Your task to perform on an android device: snooze an email in the gmail app Image 0: 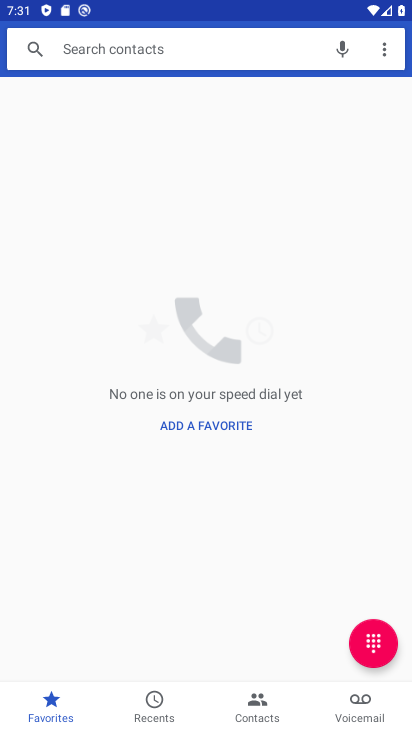
Step 0: press home button
Your task to perform on an android device: snooze an email in the gmail app Image 1: 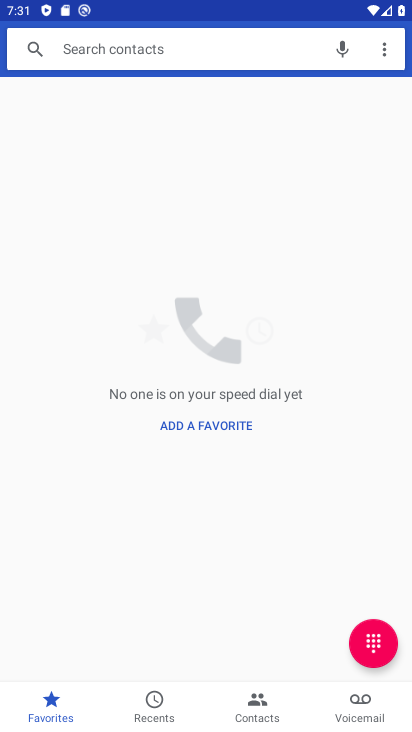
Step 1: click (263, 149)
Your task to perform on an android device: snooze an email in the gmail app Image 2: 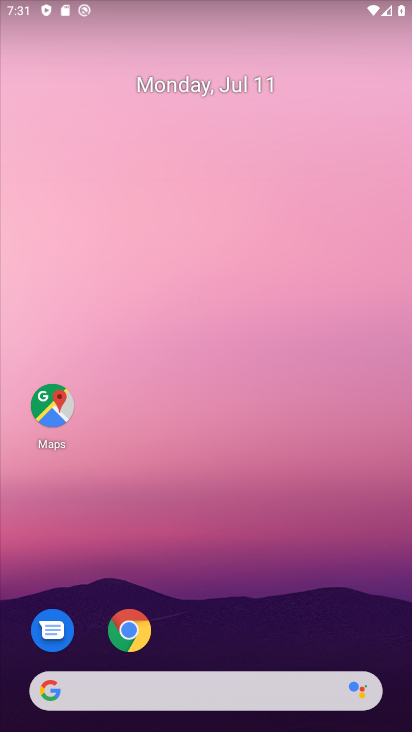
Step 2: drag from (198, 617) to (246, 161)
Your task to perform on an android device: snooze an email in the gmail app Image 3: 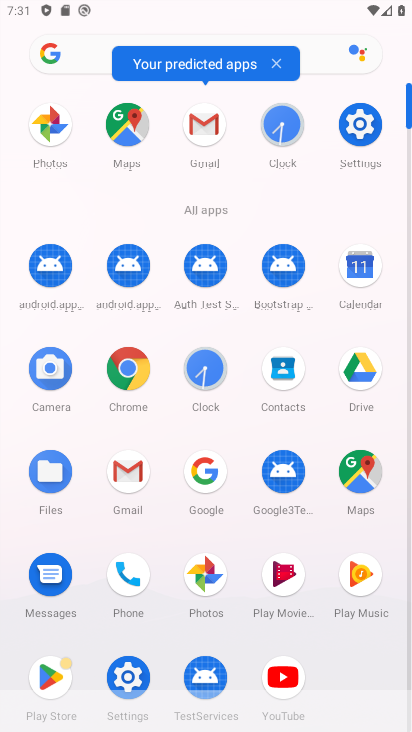
Step 3: click (118, 460)
Your task to perform on an android device: snooze an email in the gmail app Image 4: 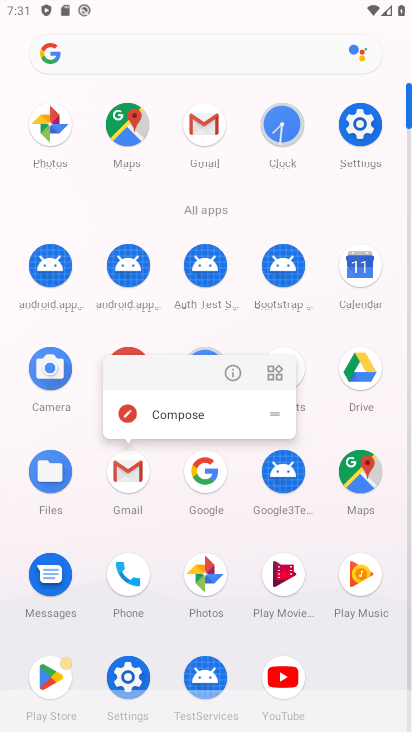
Step 4: click (235, 374)
Your task to perform on an android device: snooze an email in the gmail app Image 5: 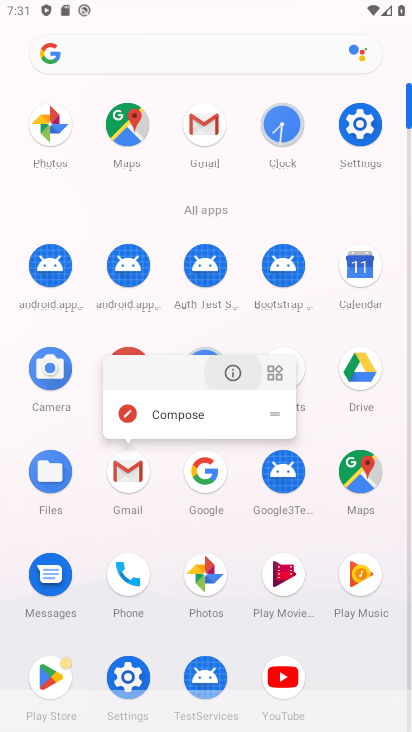
Step 5: click (235, 374)
Your task to perform on an android device: snooze an email in the gmail app Image 6: 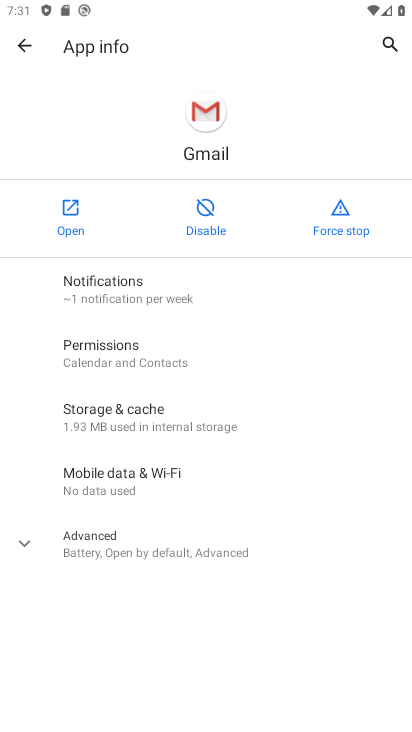
Step 6: click (76, 225)
Your task to perform on an android device: snooze an email in the gmail app Image 7: 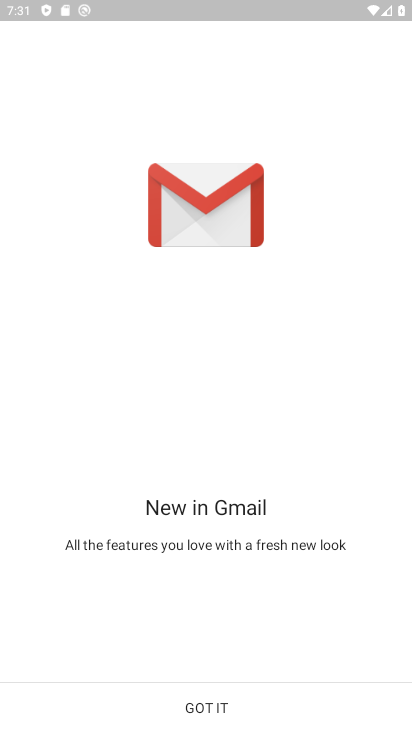
Step 7: click (211, 723)
Your task to perform on an android device: snooze an email in the gmail app Image 8: 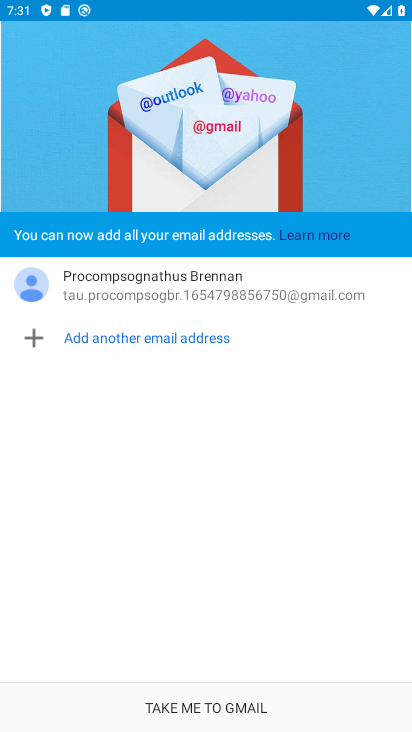
Step 8: click (198, 710)
Your task to perform on an android device: snooze an email in the gmail app Image 9: 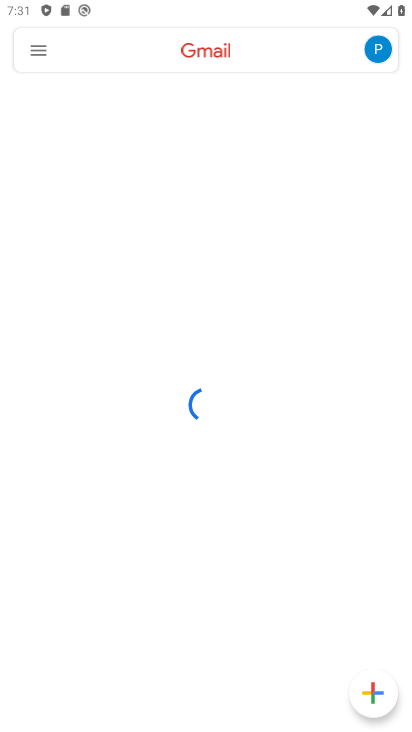
Step 9: click (36, 51)
Your task to perform on an android device: snooze an email in the gmail app Image 10: 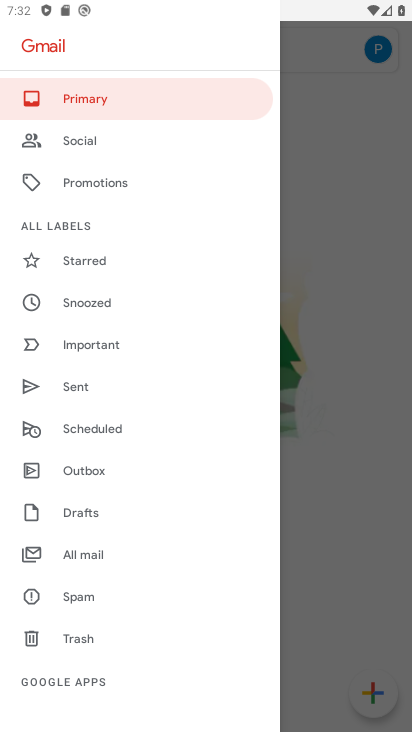
Step 10: click (105, 298)
Your task to perform on an android device: snooze an email in the gmail app Image 11: 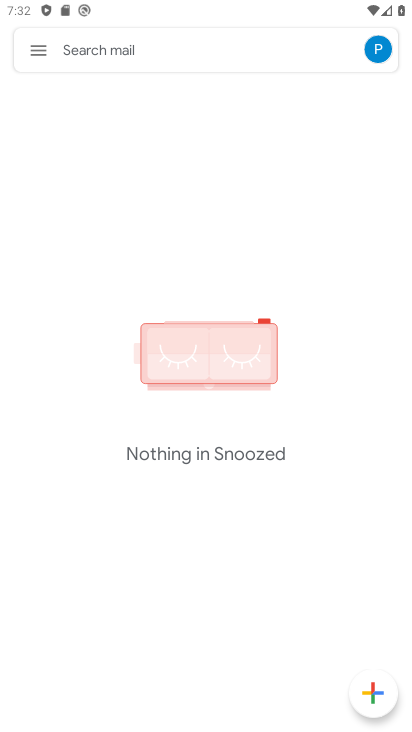
Step 11: drag from (175, 600) to (203, 266)
Your task to perform on an android device: snooze an email in the gmail app Image 12: 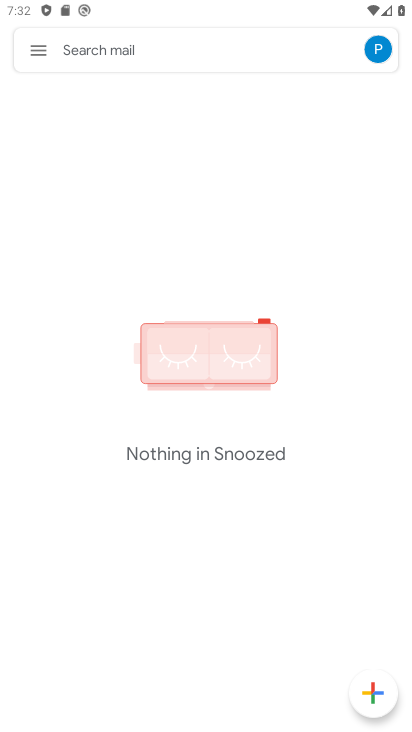
Step 12: click (200, 208)
Your task to perform on an android device: snooze an email in the gmail app Image 13: 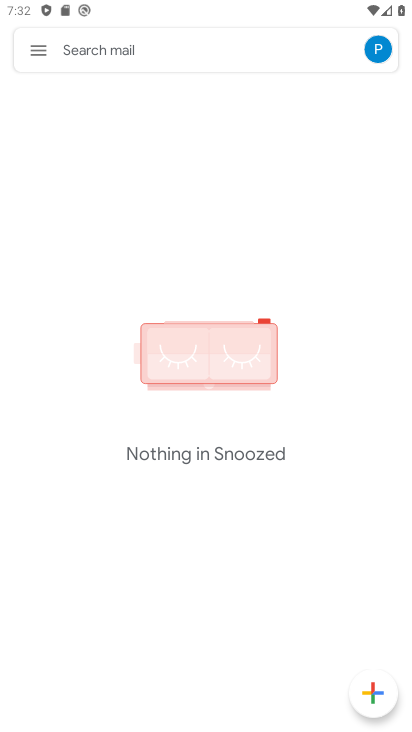
Step 13: click (200, 208)
Your task to perform on an android device: snooze an email in the gmail app Image 14: 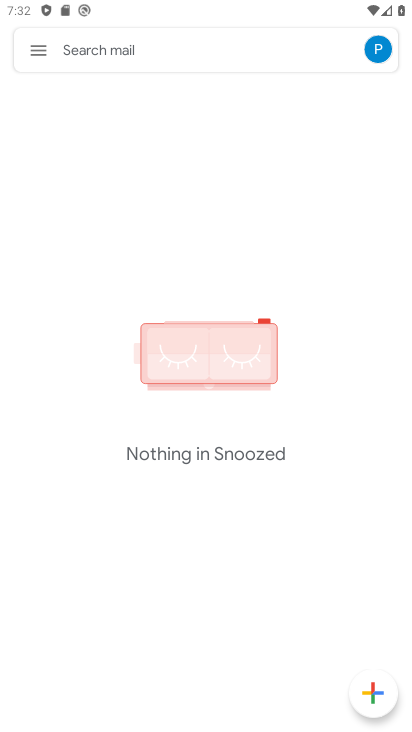
Step 14: click (200, 208)
Your task to perform on an android device: snooze an email in the gmail app Image 15: 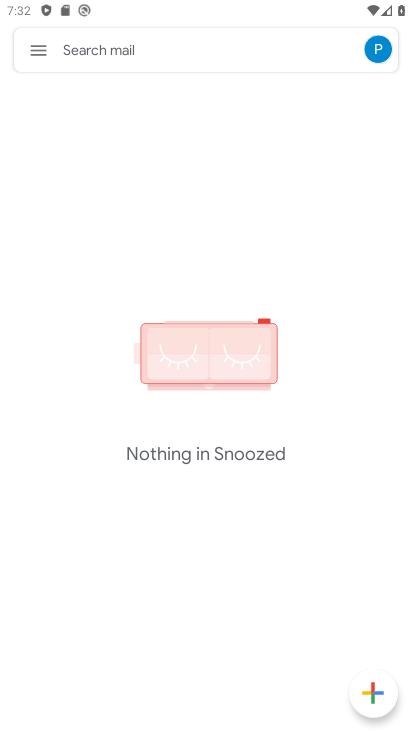
Step 15: drag from (235, 174) to (237, 426)
Your task to perform on an android device: snooze an email in the gmail app Image 16: 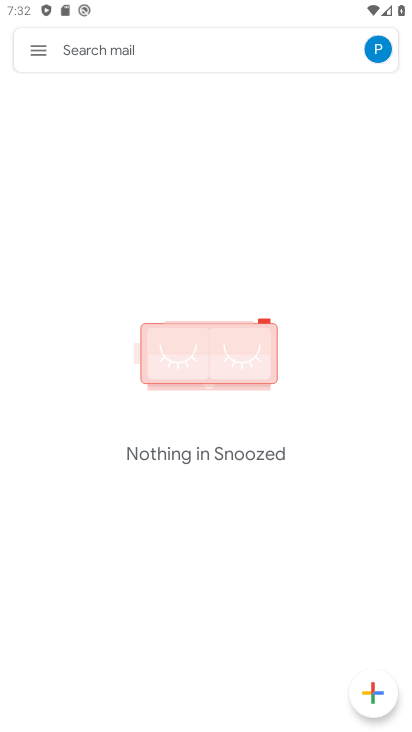
Step 16: click (243, 419)
Your task to perform on an android device: snooze an email in the gmail app Image 17: 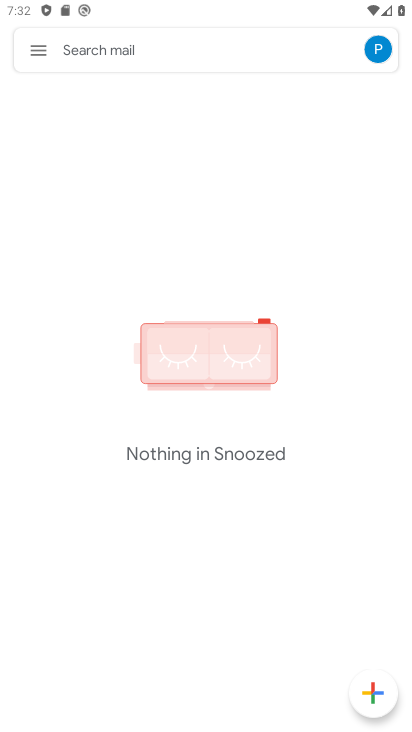
Step 17: click (243, 419)
Your task to perform on an android device: snooze an email in the gmail app Image 18: 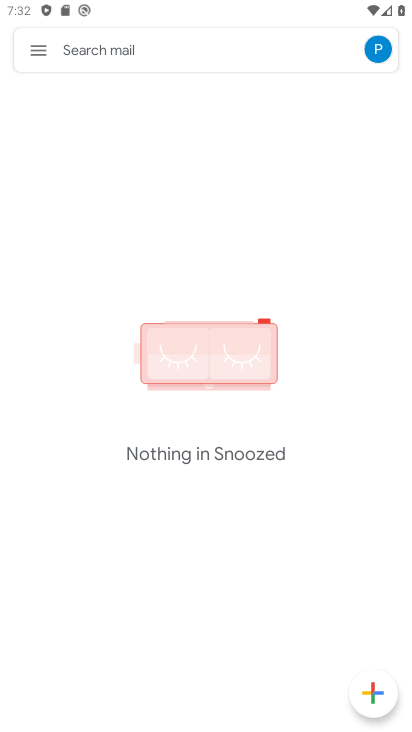
Step 18: click (216, 555)
Your task to perform on an android device: snooze an email in the gmail app Image 19: 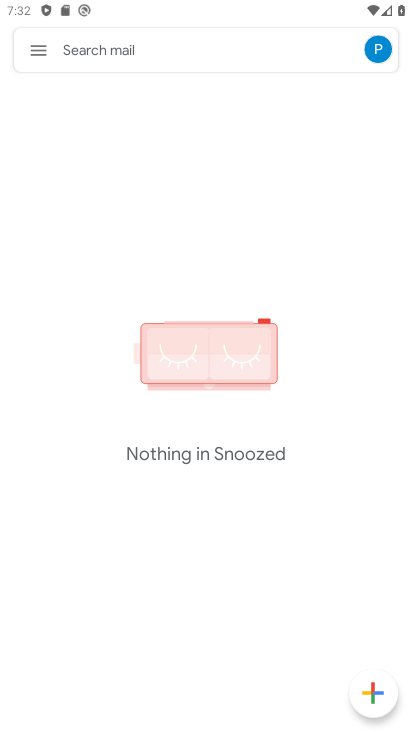
Step 19: task complete